Your task to perform on an android device: change timer sound Image 0: 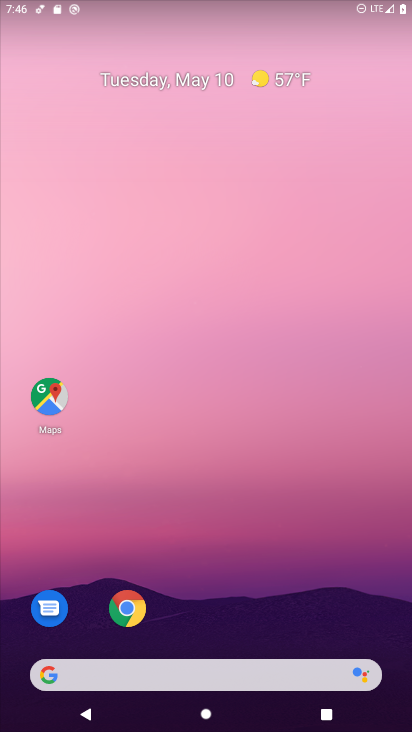
Step 0: drag from (329, 614) to (279, 10)
Your task to perform on an android device: change timer sound Image 1: 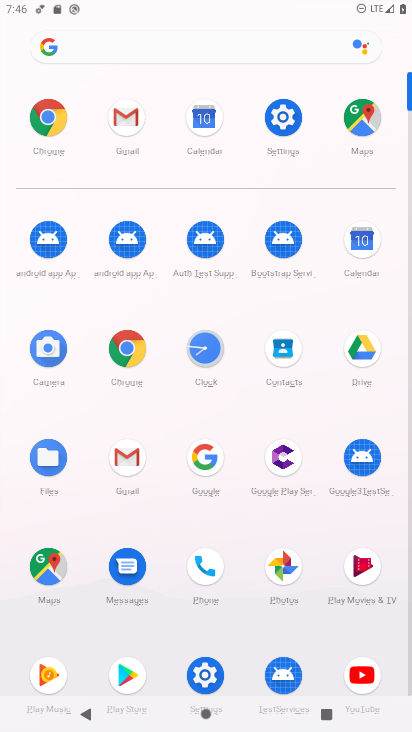
Step 1: click (193, 350)
Your task to perform on an android device: change timer sound Image 2: 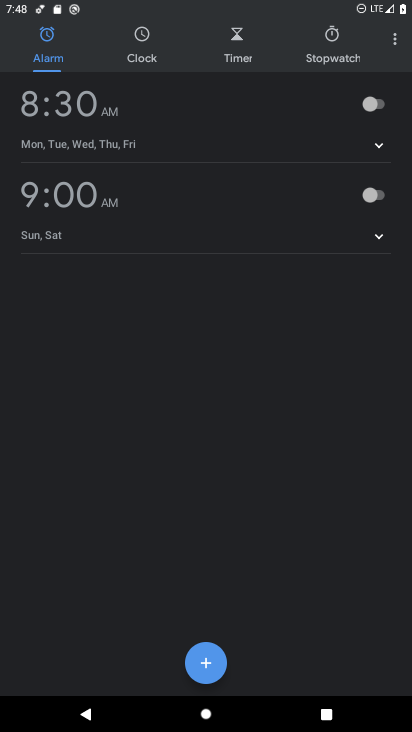
Step 2: click (399, 36)
Your task to perform on an android device: change timer sound Image 3: 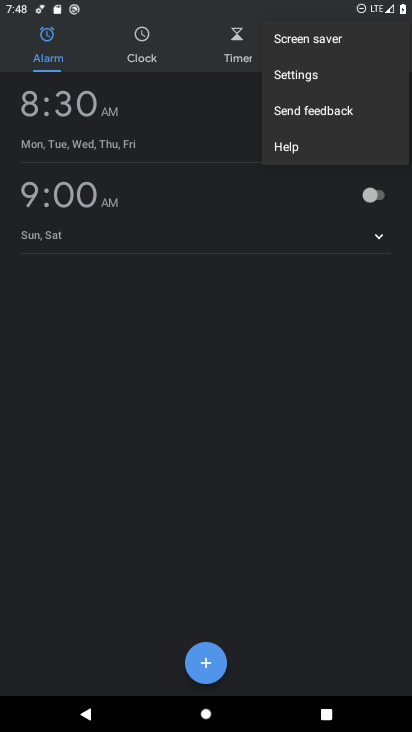
Step 3: click (326, 74)
Your task to perform on an android device: change timer sound Image 4: 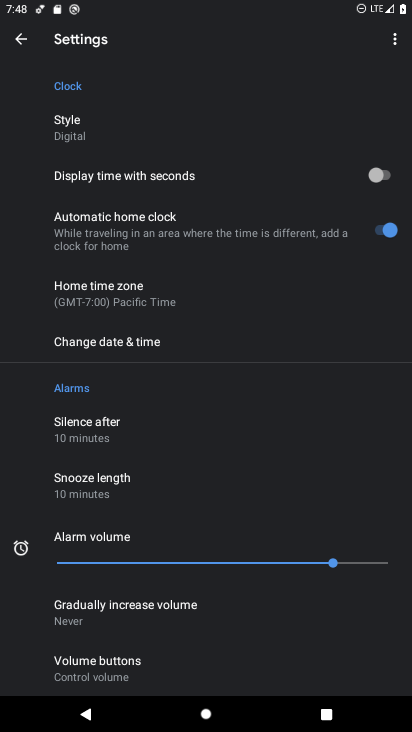
Step 4: drag from (155, 628) to (239, 179)
Your task to perform on an android device: change timer sound Image 5: 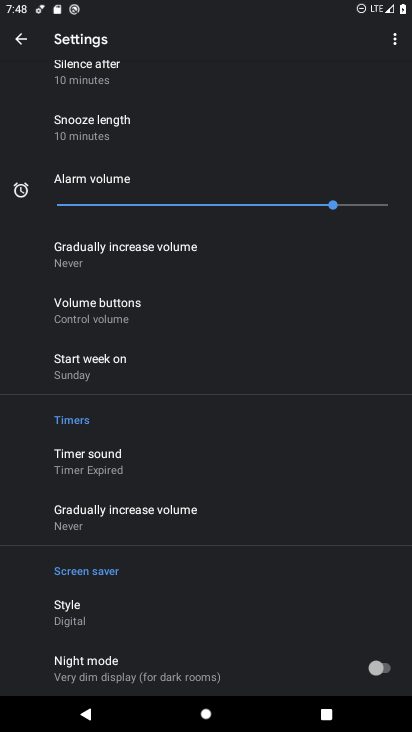
Step 5: click (154, 450)
Your task to perform on an android device: change timer sound Image 6: 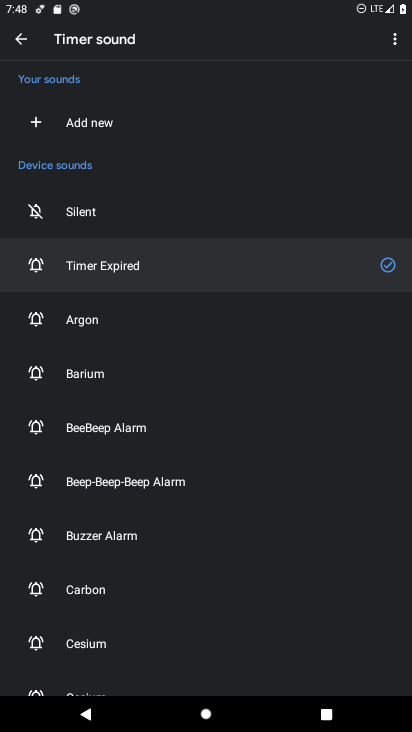
Step 6: click (121, 373)
Your task to perform on an android device: change timer sound Image 7: 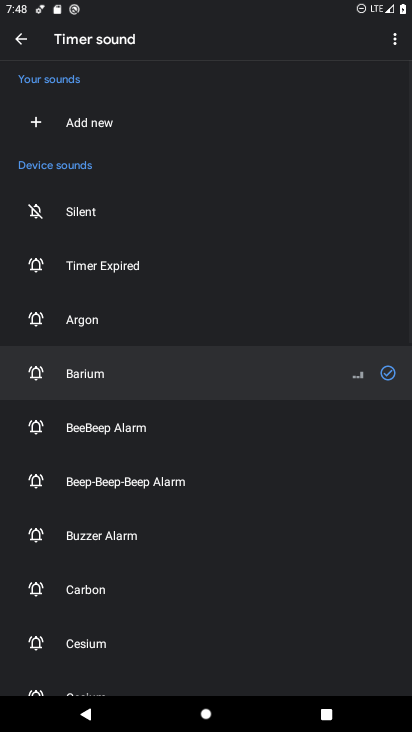
Step 7: task complete